Your task to perform on an android device: set the timer Image 0: 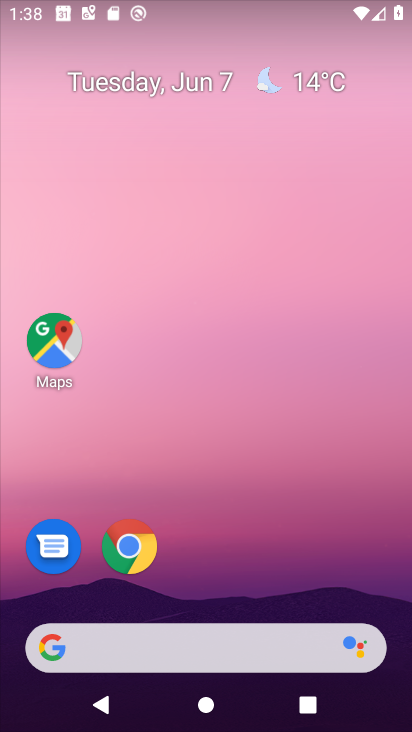
Step 0: press home button
Your task to perform on an android device: set the timer Image 1: 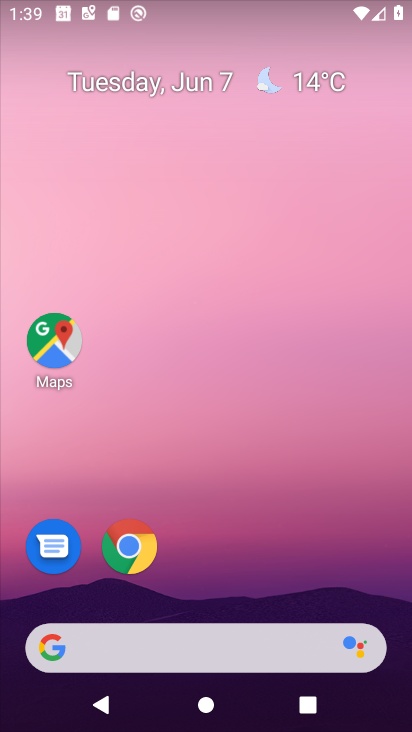
Step 1: drag from (267, 566) to (265, 146)
Your task to perform on an android device: set the timer Image 2: 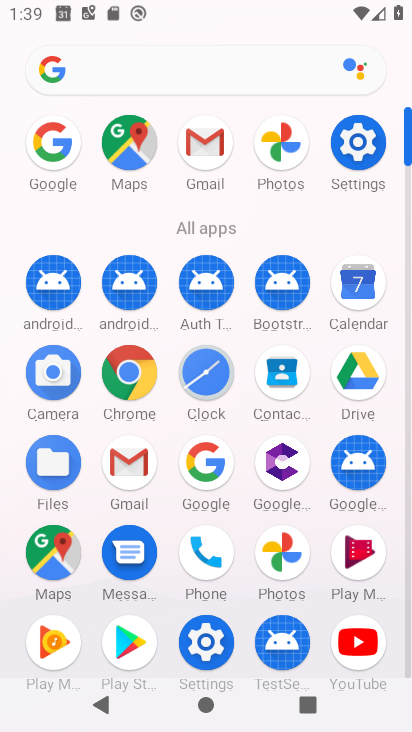
Step 2: click (210, 385)
Your task to perform on an android device: set the timer Image 3: 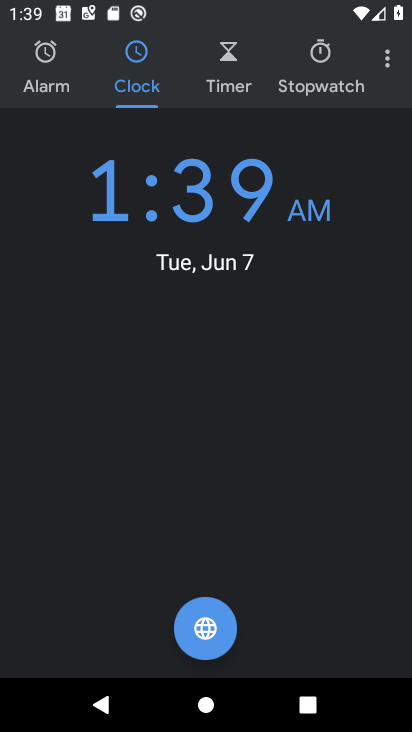
Step 3: click (231, 62)
Your task to perform on an android device: set the timer Image 4: 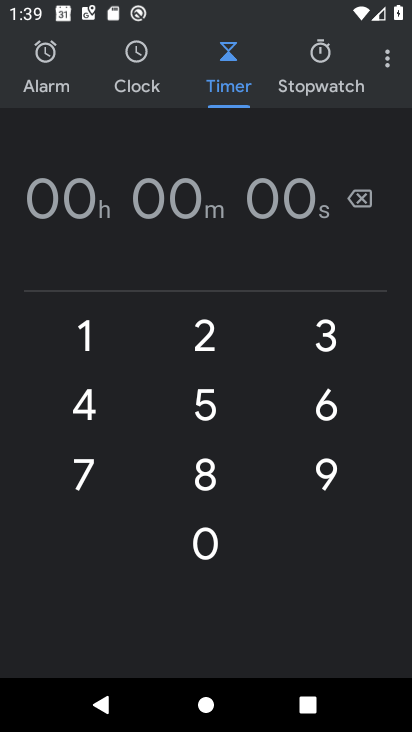
Step 4: click (74, 209)
Your task to perform on an android device: set the timer Image 5: 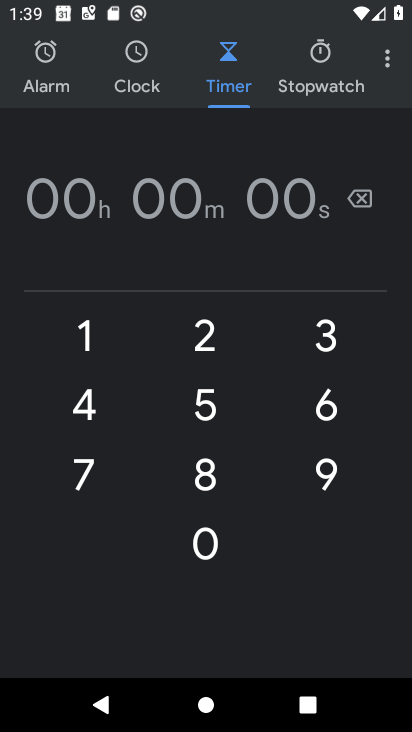
Step 5: click (88, 331)
Your task to perform on an android device: set the timer Image 6: 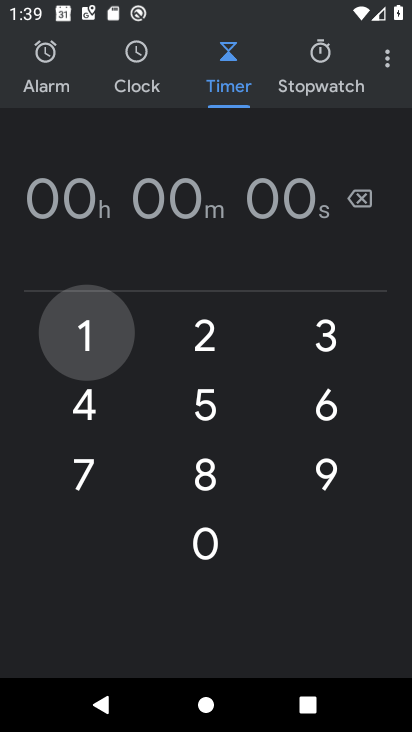
Step 6: click (88, 331)
Your task to perform on an android device: set the timer Image 7: 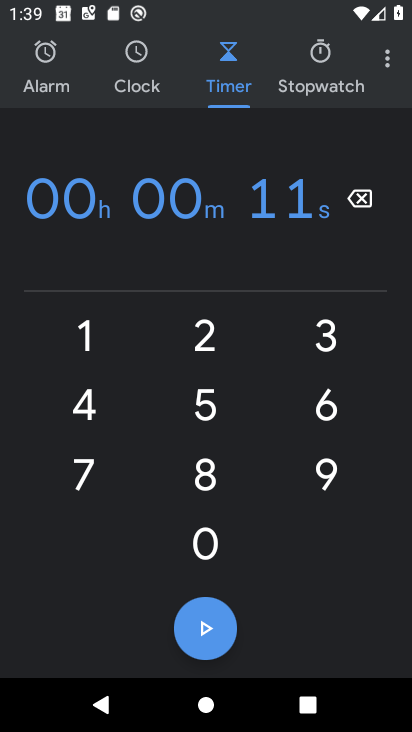
Step 7: click (215, 335)
Your task to perform on an android device: set the timer Image 8: 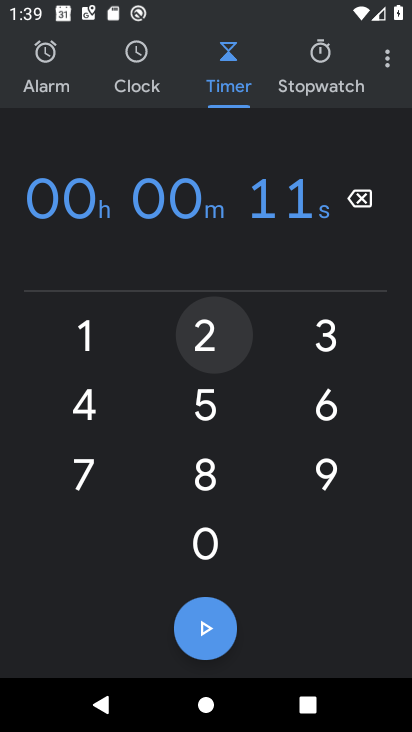
Step 8: click (215, 335)
Your task to perform on an android device: set the timer Image 9: 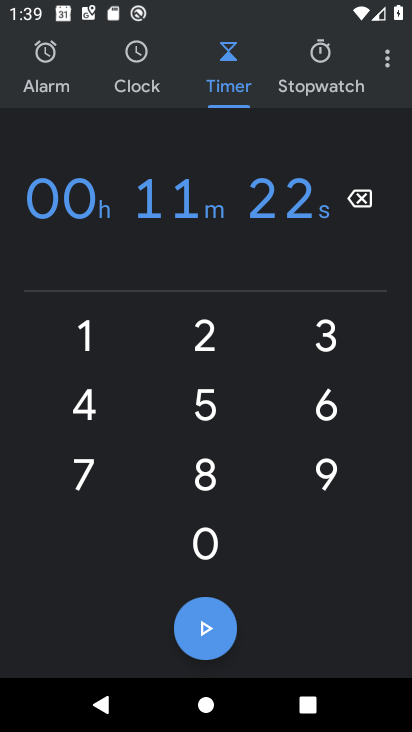
Step 9: click (216, 486)
Your task to perform on an android device: set the timer Image 10: 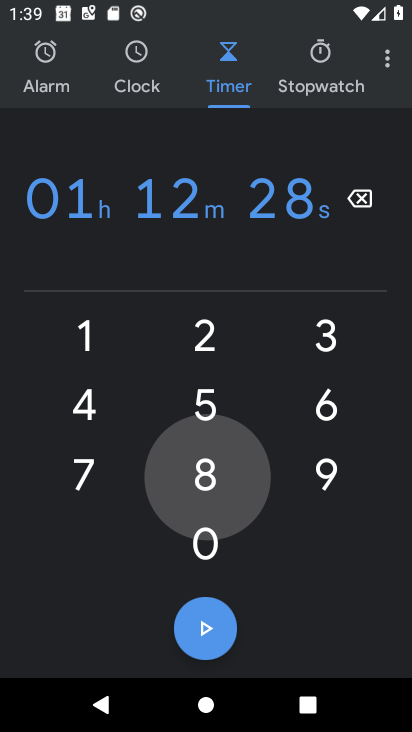
Step 10: click (217, 547)
Your task to perform on an android device: set the timer Image 11: 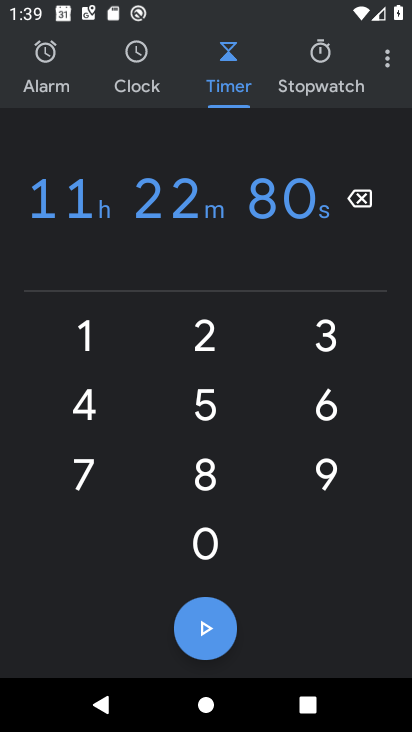
Step 11: click (207, 631)
Your task to perform on an android device: set the timer Image 12: 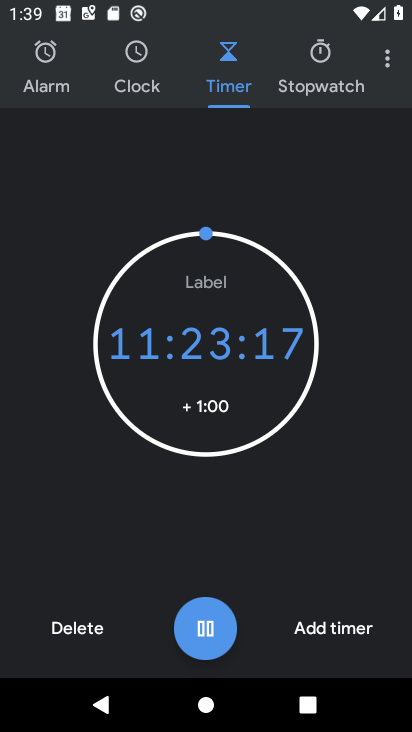
Step 12: task complete